Your task to perform on an android device: Is it going to rain tomorrow? Image 0: 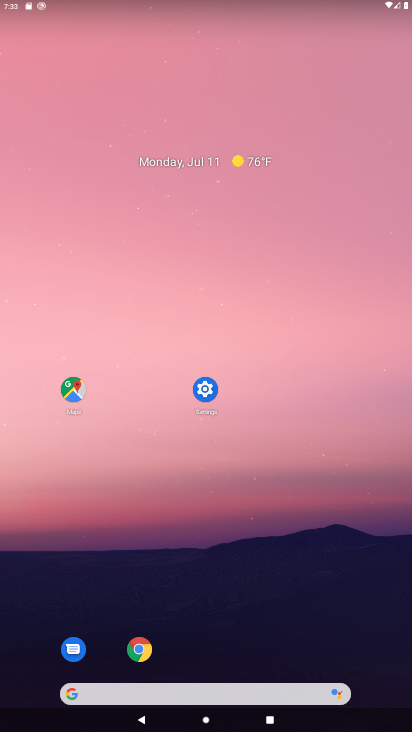
Step 0: drag from (6, 224) to (412, 248)
Your task to perform on an android device: Is it going to rain tomorrow? Image 1: 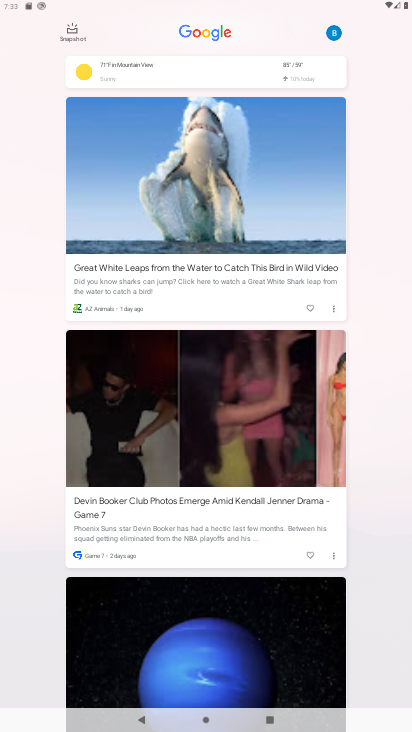
Step 1: drag from (225, 155) to (221, 561)
Your task to perform on an android device: Is it going to rain tomorrow? Image 2: 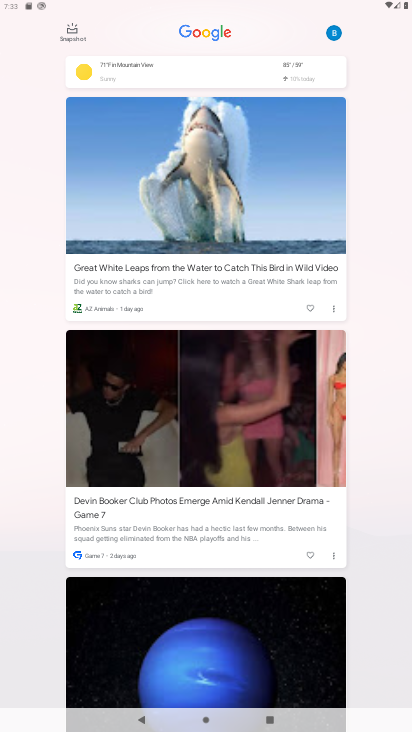
Step 2: click (297, 62)
Your task to perform on an android device: Is it going to rain tomorrow? Image 3: 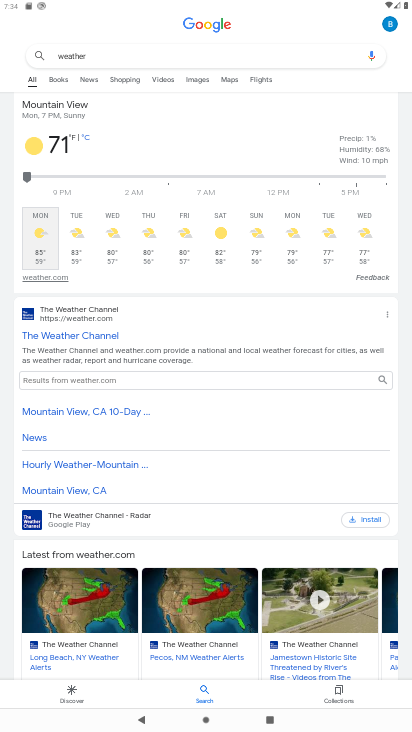
Step 3: task complete